Your task to perform on an android device: Search for the new Nike Air Max 270 on Nike.com Image 0: 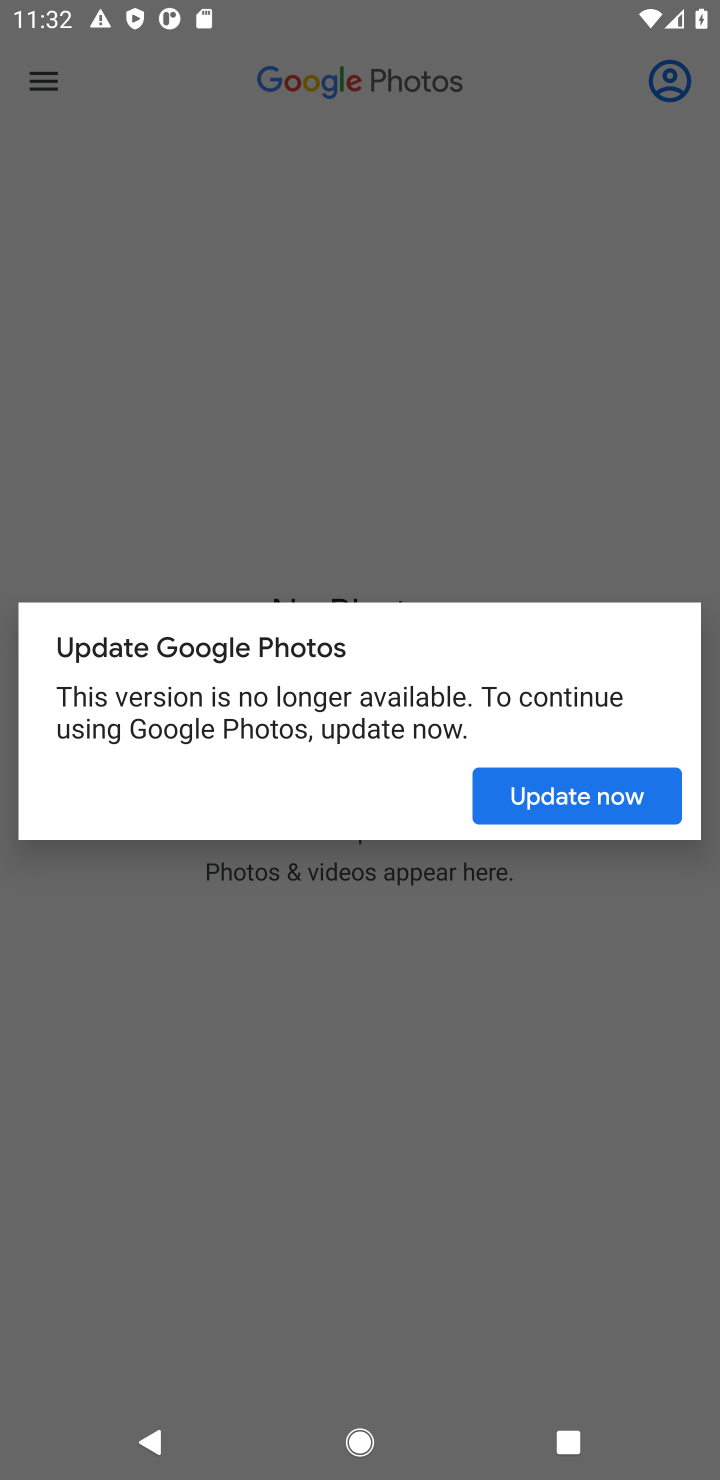
Step 0: press home button
Your task to perform on an android device: Search for the new Nike Air Max 270 on Nike.com Image 1: 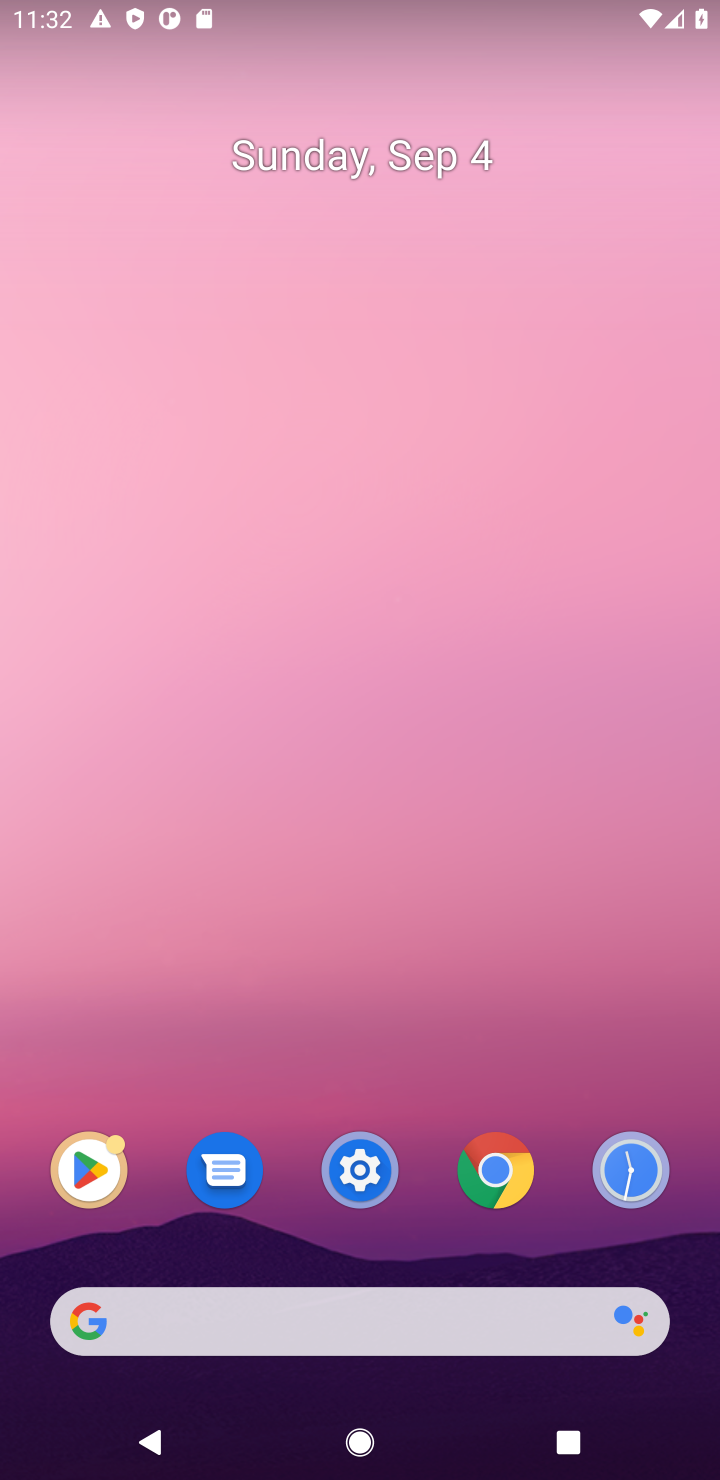
Step 1: click (353, 1297)
Your task to perform on an android device: Search for the new Nike Air Max 270 on Nike.com Image 2: 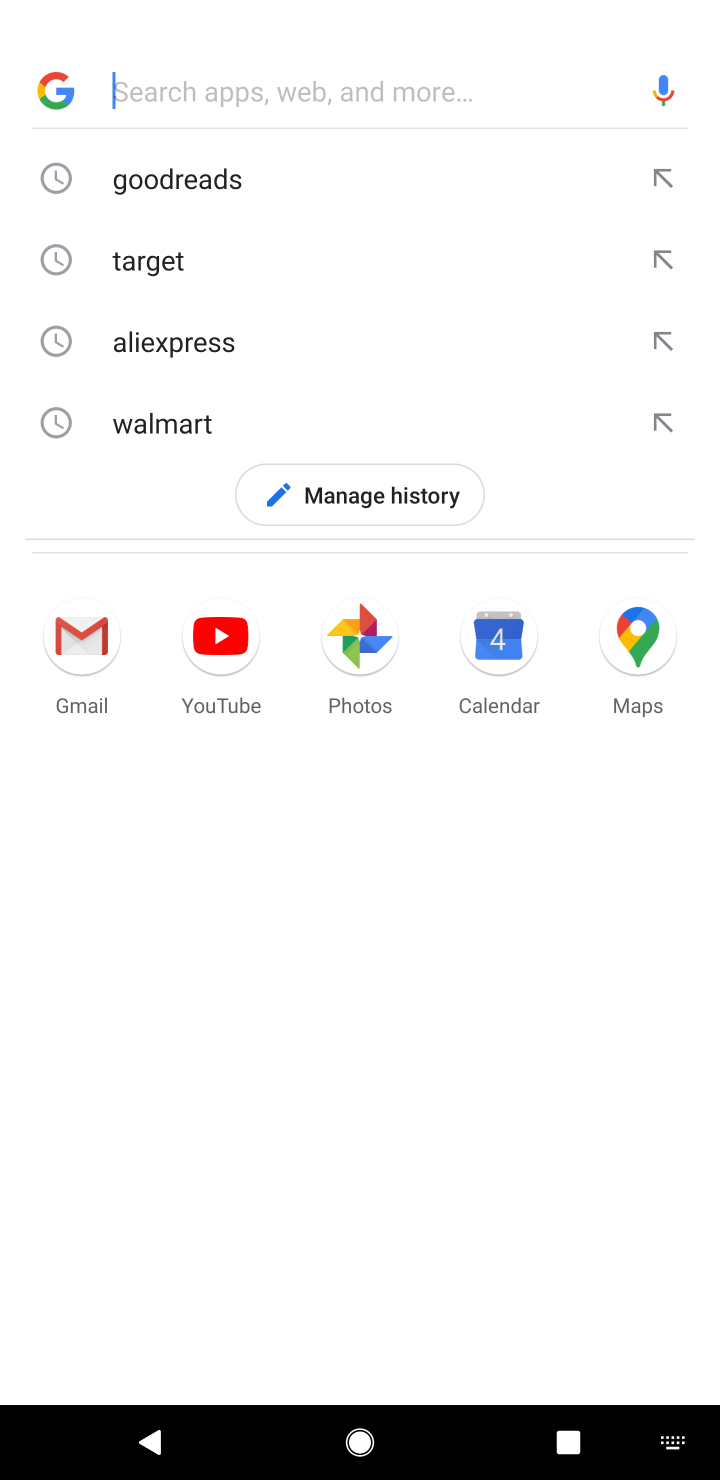
Step 2: type "Nike.com"
Your task to perform on an android device: Search for the new Nike Air Max 270 on Nike.com Image 3: 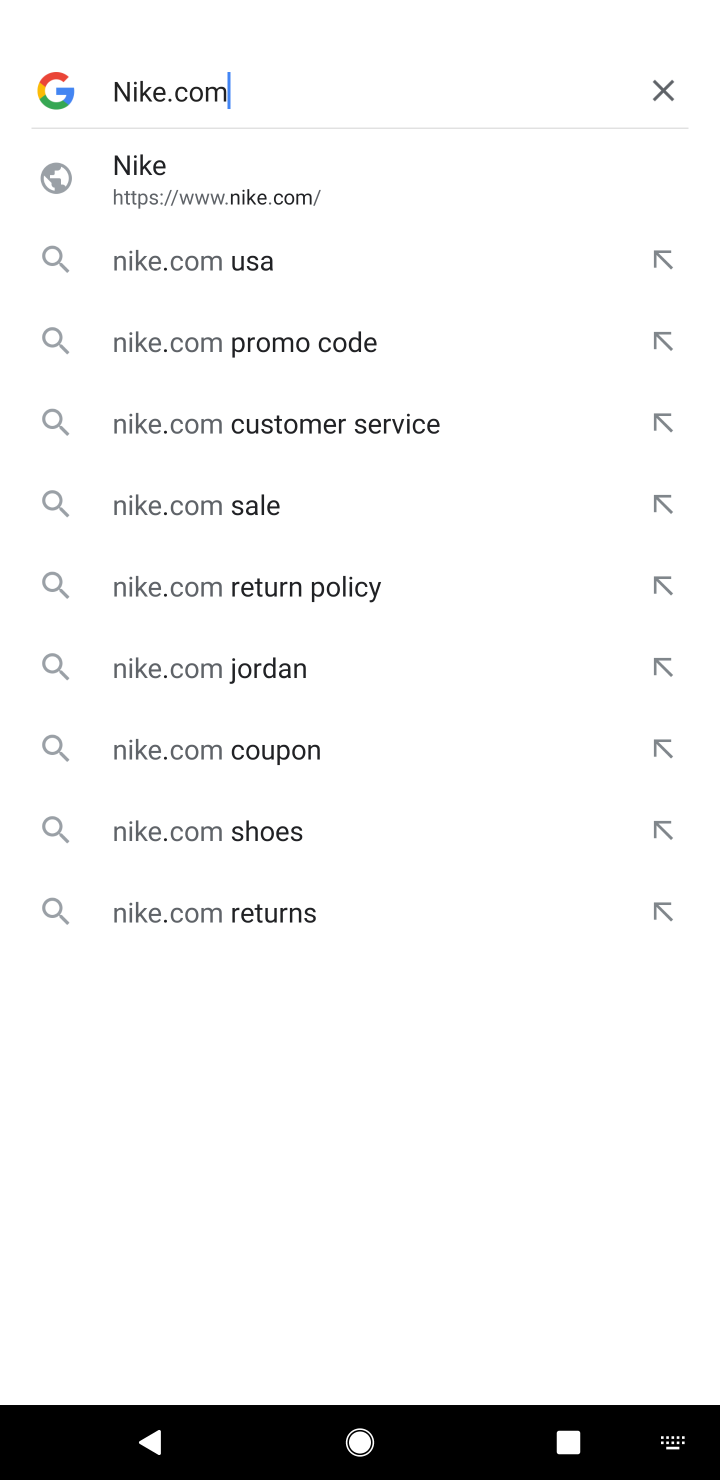
Step 3: click (143, 188)
Your task to perform on an android device: Search for the new Nike Air Max 270 on Nike.com Image 4: 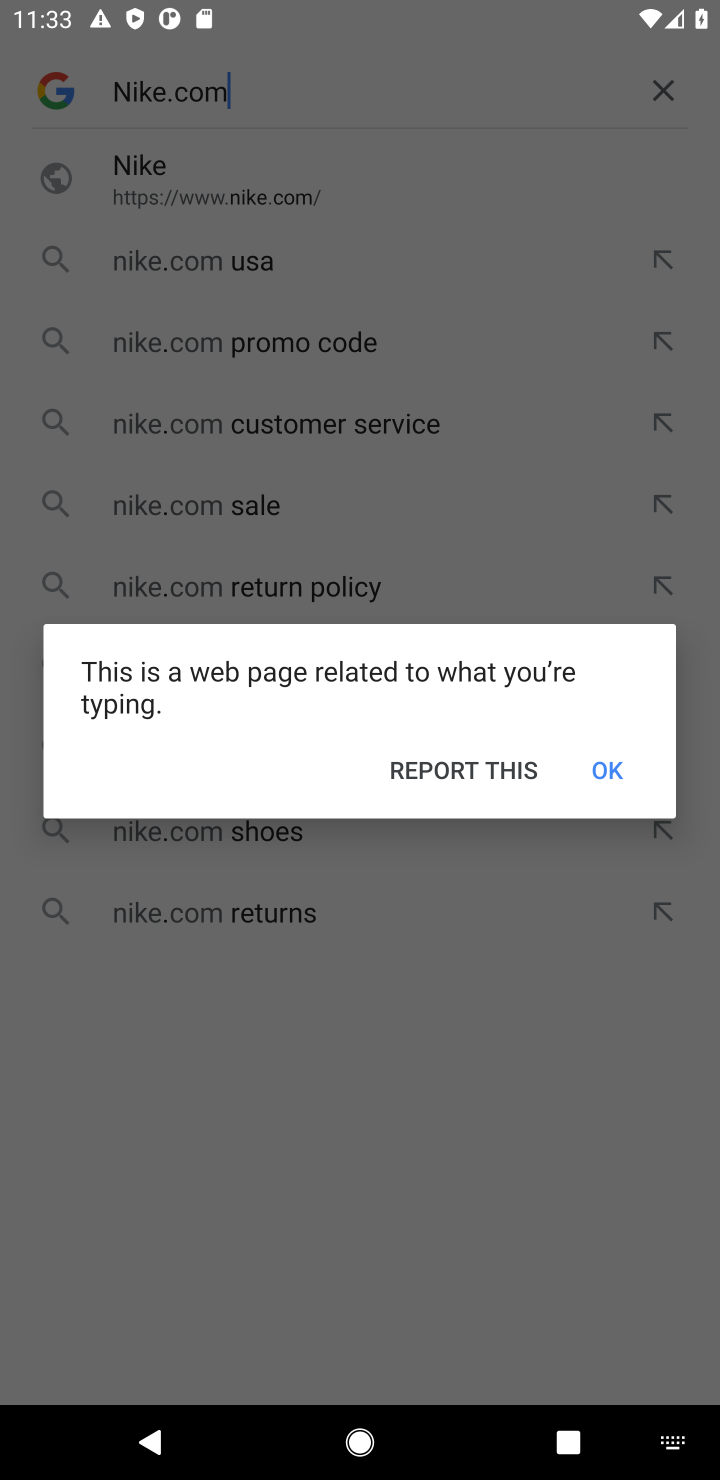
Step 4: click (575, 766)
Your task to perform on an android device: Search for the new Nike Air Max 270 on Nike.com Image 5: 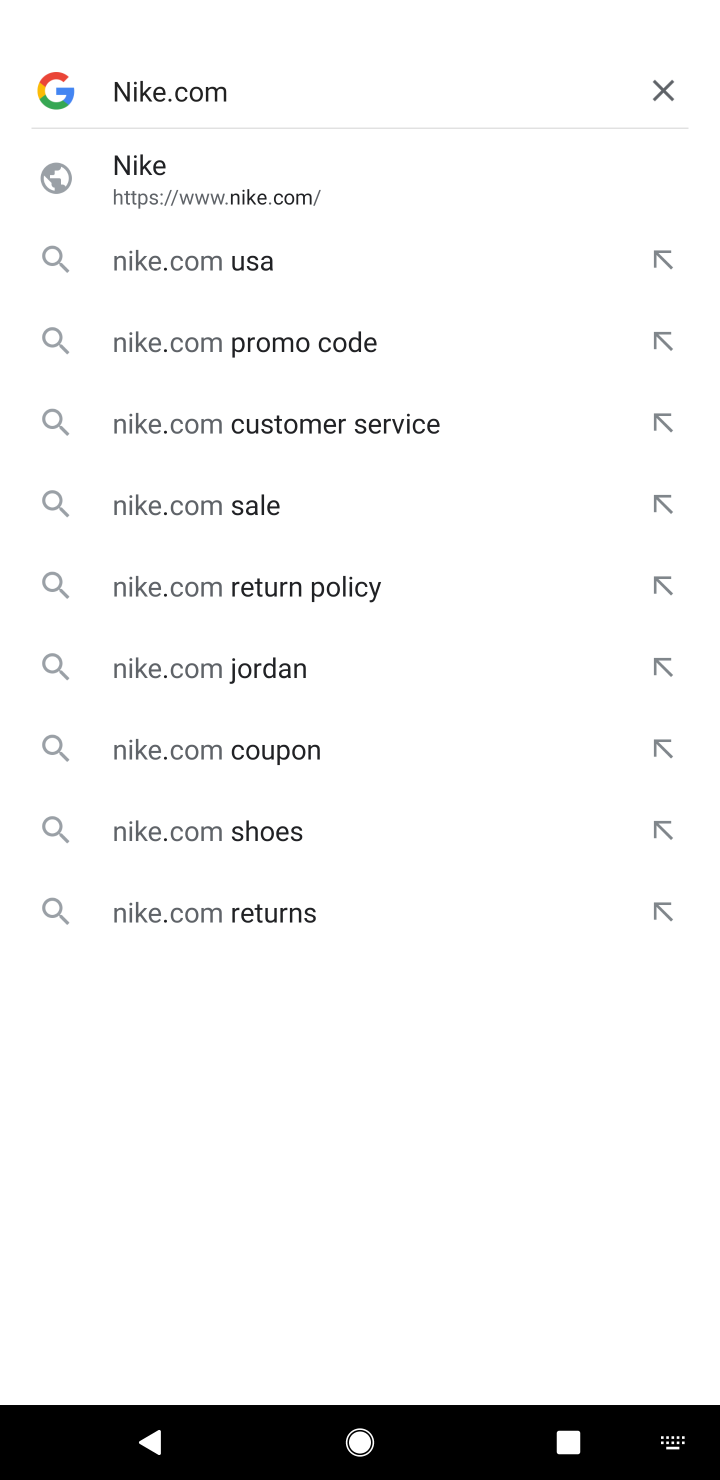
Step 5: click (196, 210)
Your task to perform on an android device: Search for the new Nike Air Max 270 on Nike.com Image 6: 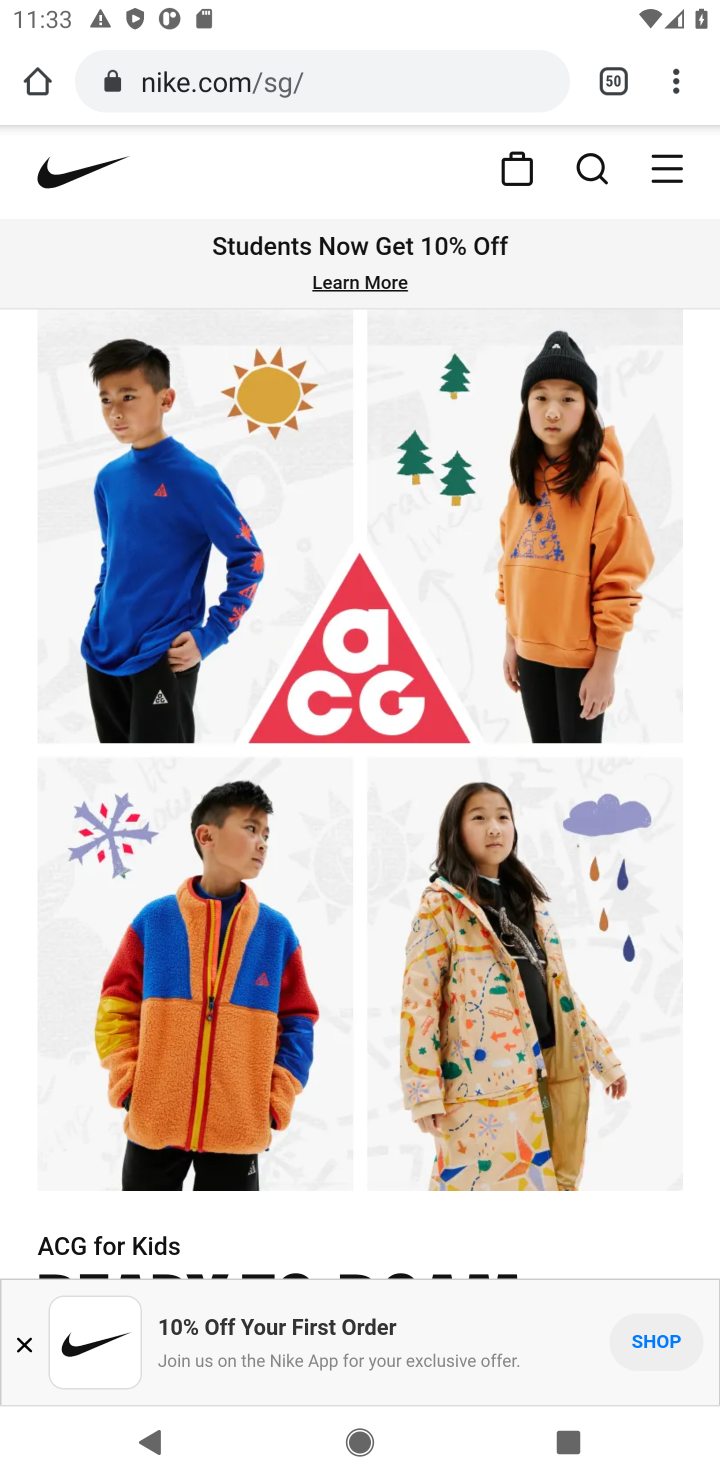
Step 6: click (593, 180)
Your task to perform on an android device: Search for the new Nike Air Max 270 on Nike.com Image 7: 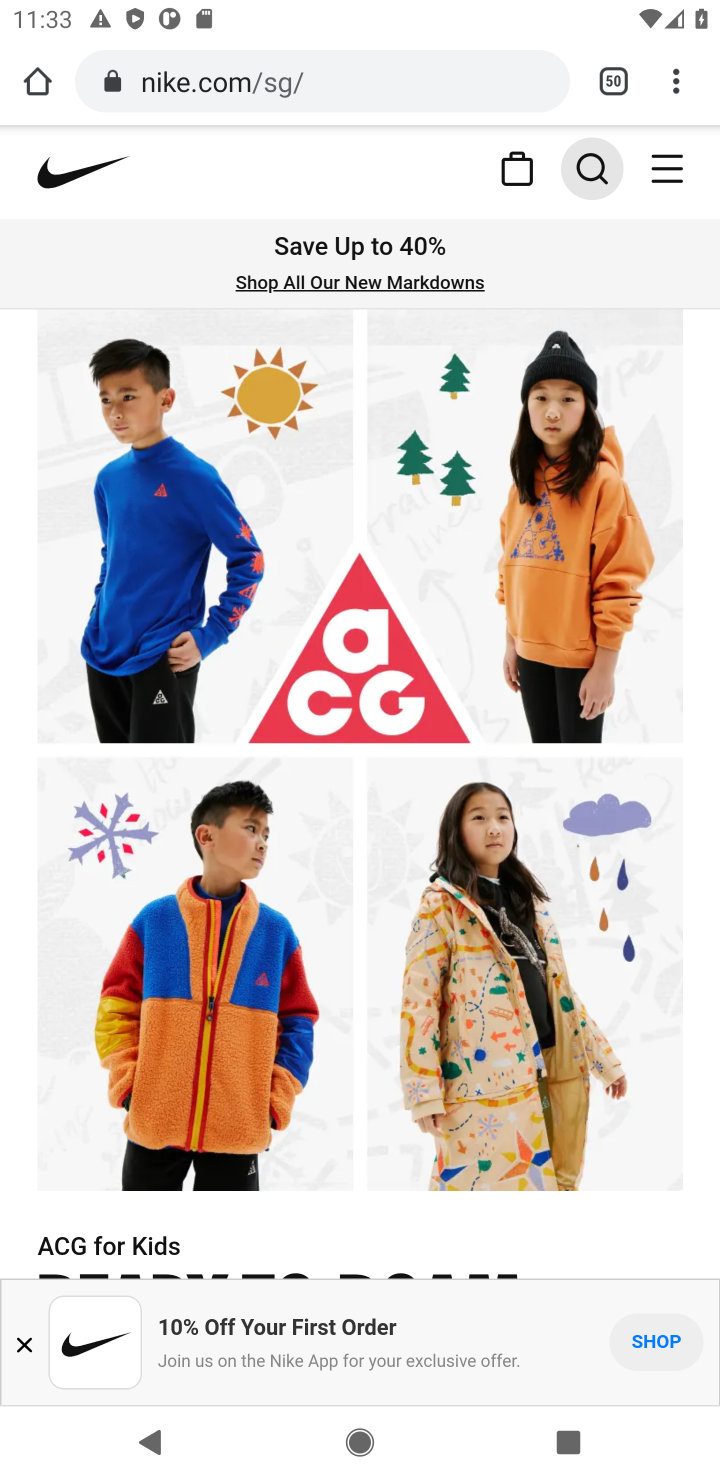
Step 7: click (593, 180)
Your task to perform on an android device: Search for the new Nike Air Max 270 on Nike.com Image 8: 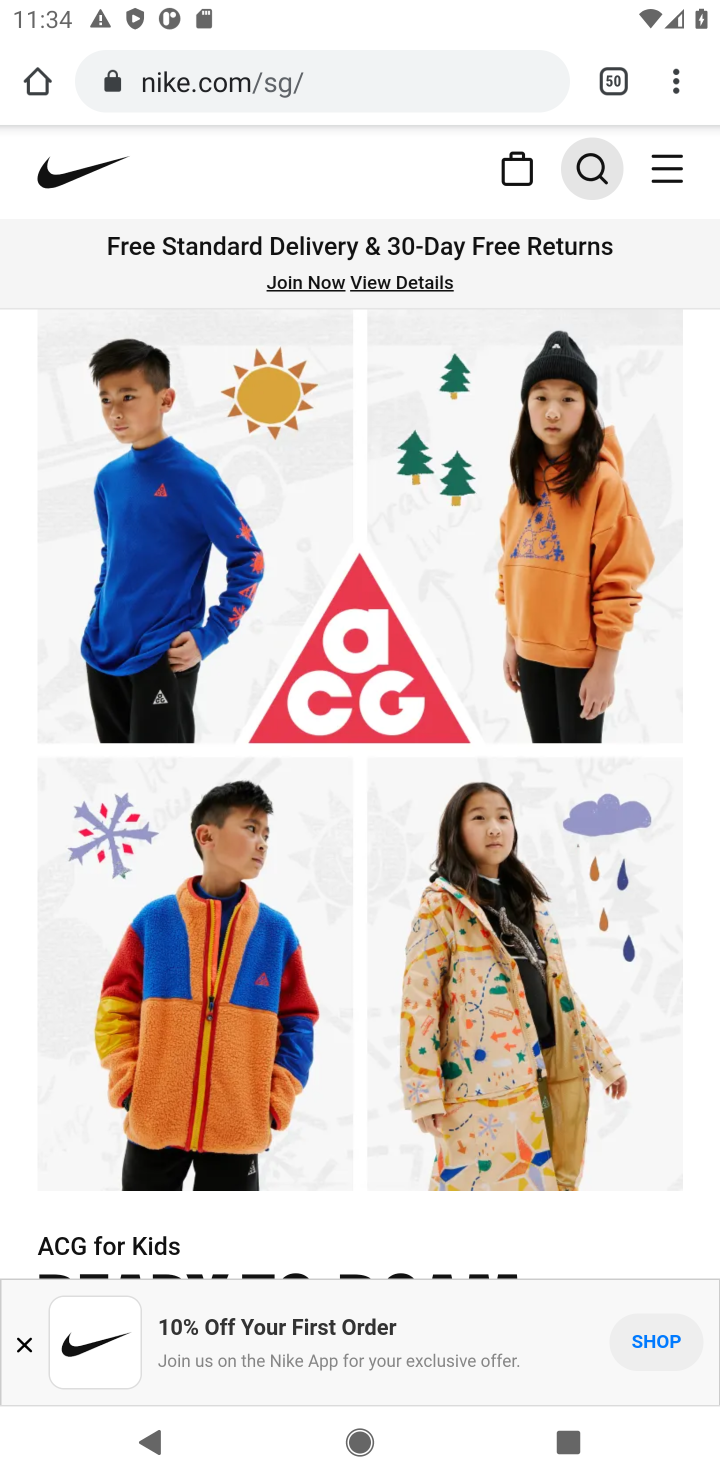
Step 8: click (596, 180)
Your task to perform on an android device: Search for the new Nike Air Max 270 on Nike.com Image 9: 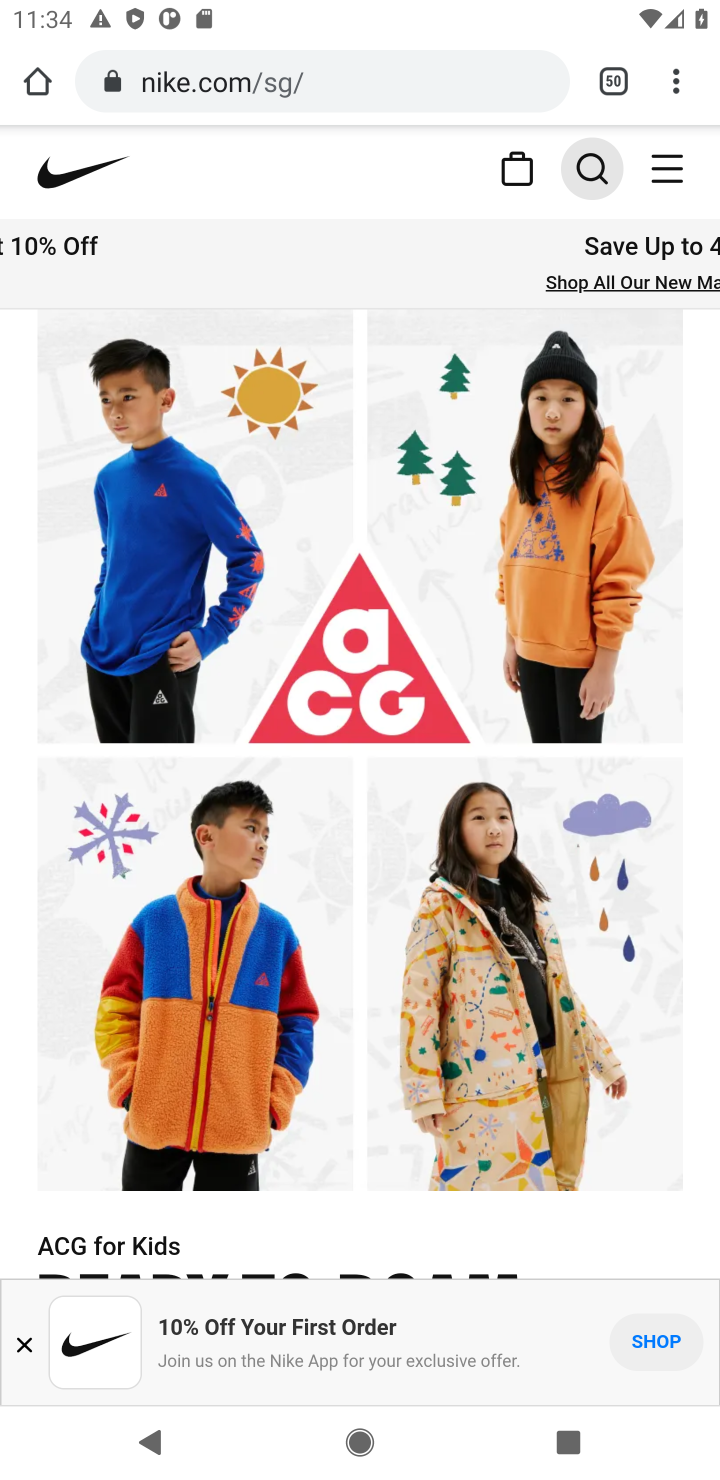
Step 9: click (600, 156)
Your task to perform on an android device: Search for the new Nike Air Max 270 on Nike.com Image 10: 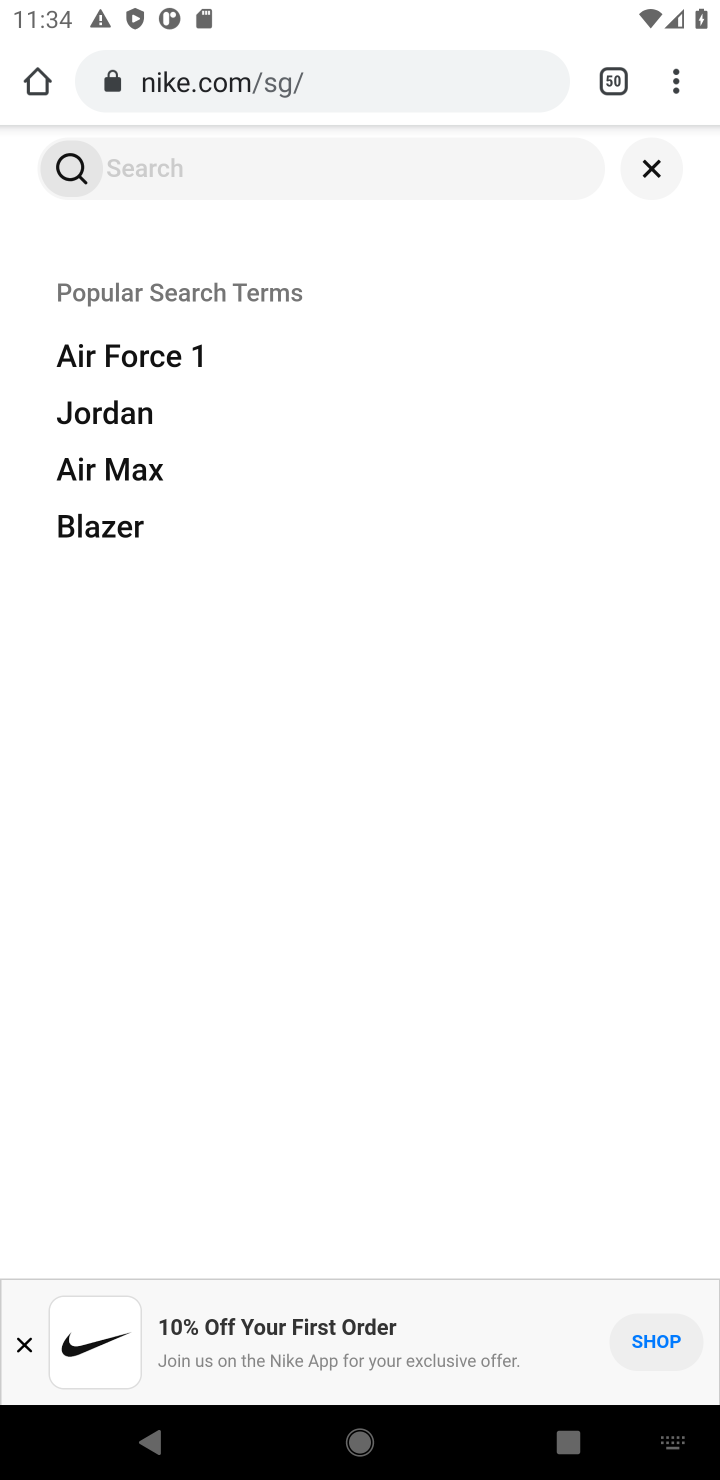
Step 10: click (279, 171)
Your task to perform on an android device: Search for the new Nike Air Max 270 on Nike.com Image 11: 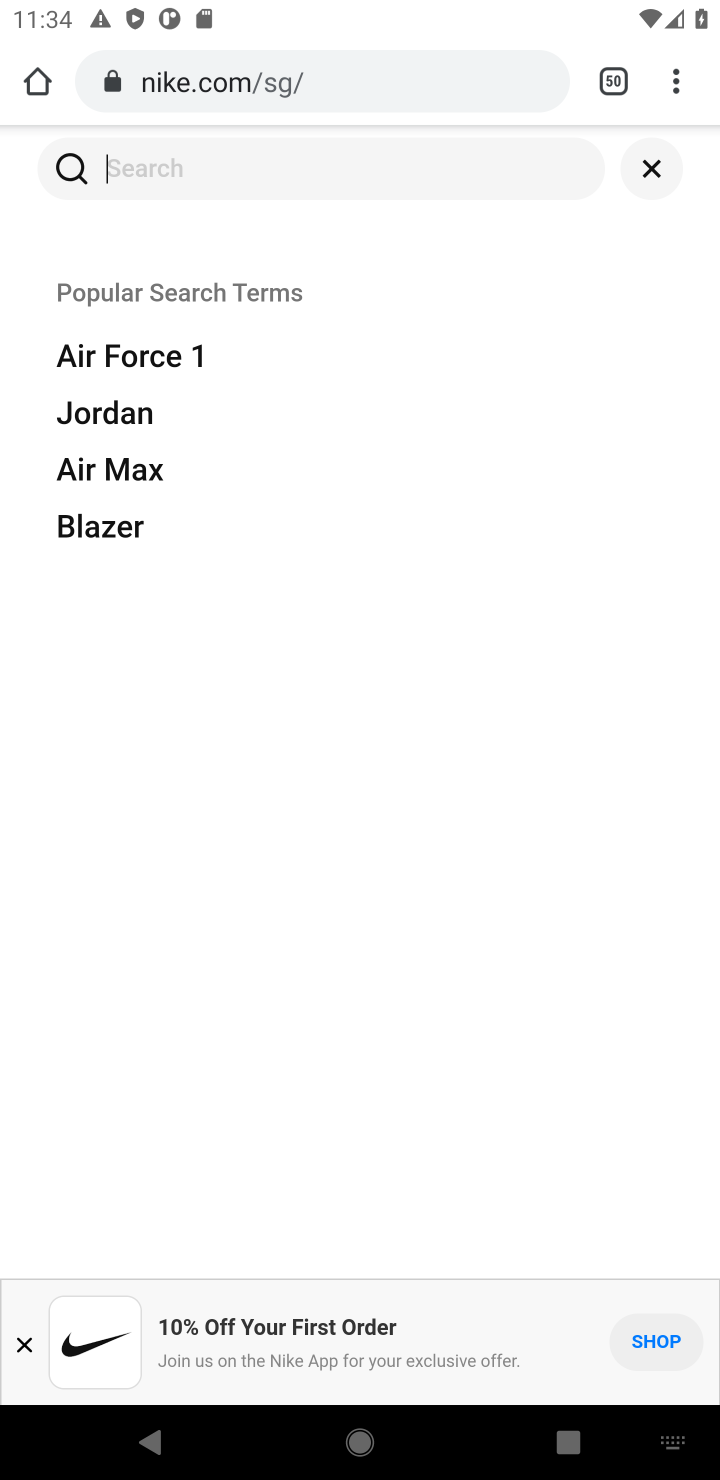
Step 11: type "Air Max 270"
Your task to perform on an android device: Search for the new Nike Air Max 270 on Nike.com Image 12: 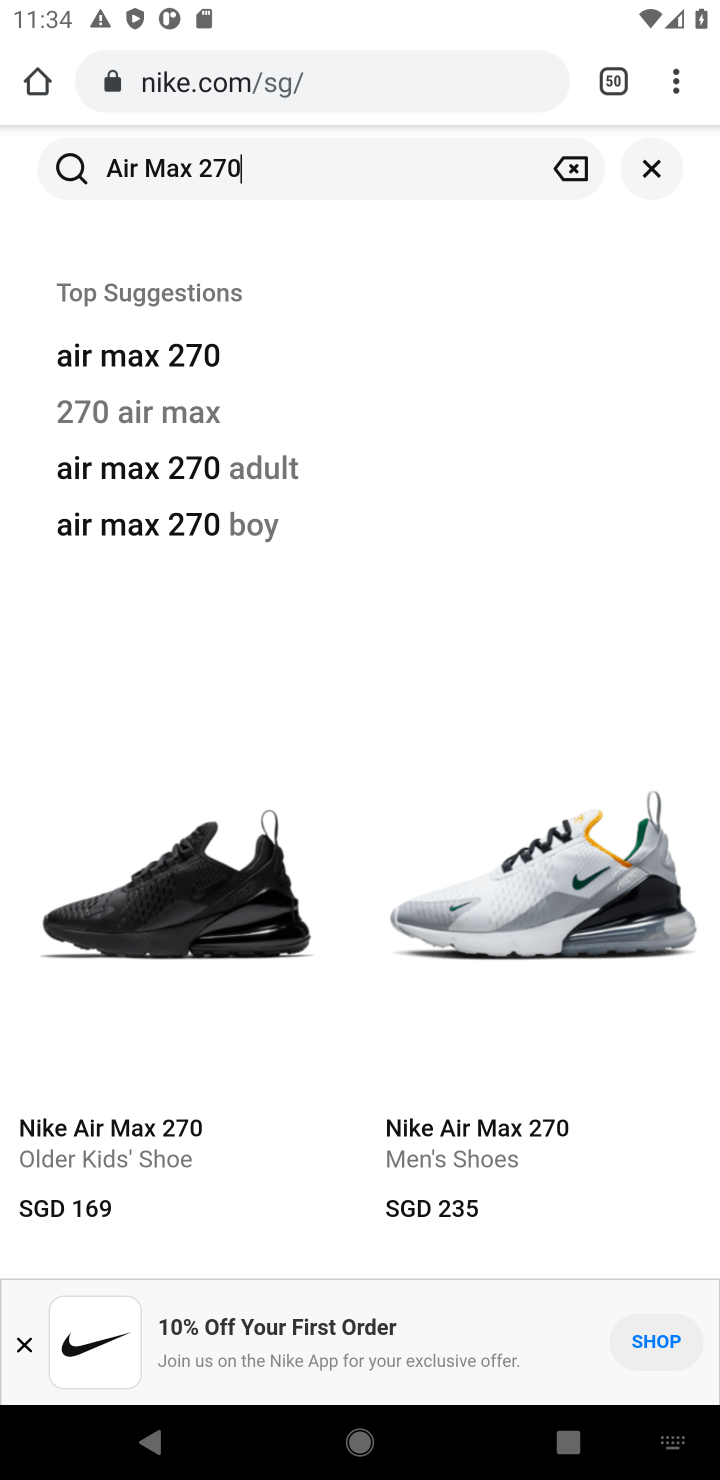
Step 12: click (184, 346)
Your task to perform on an android device: Search for the new Nike Air Max 270 on Nike.com Image 13: 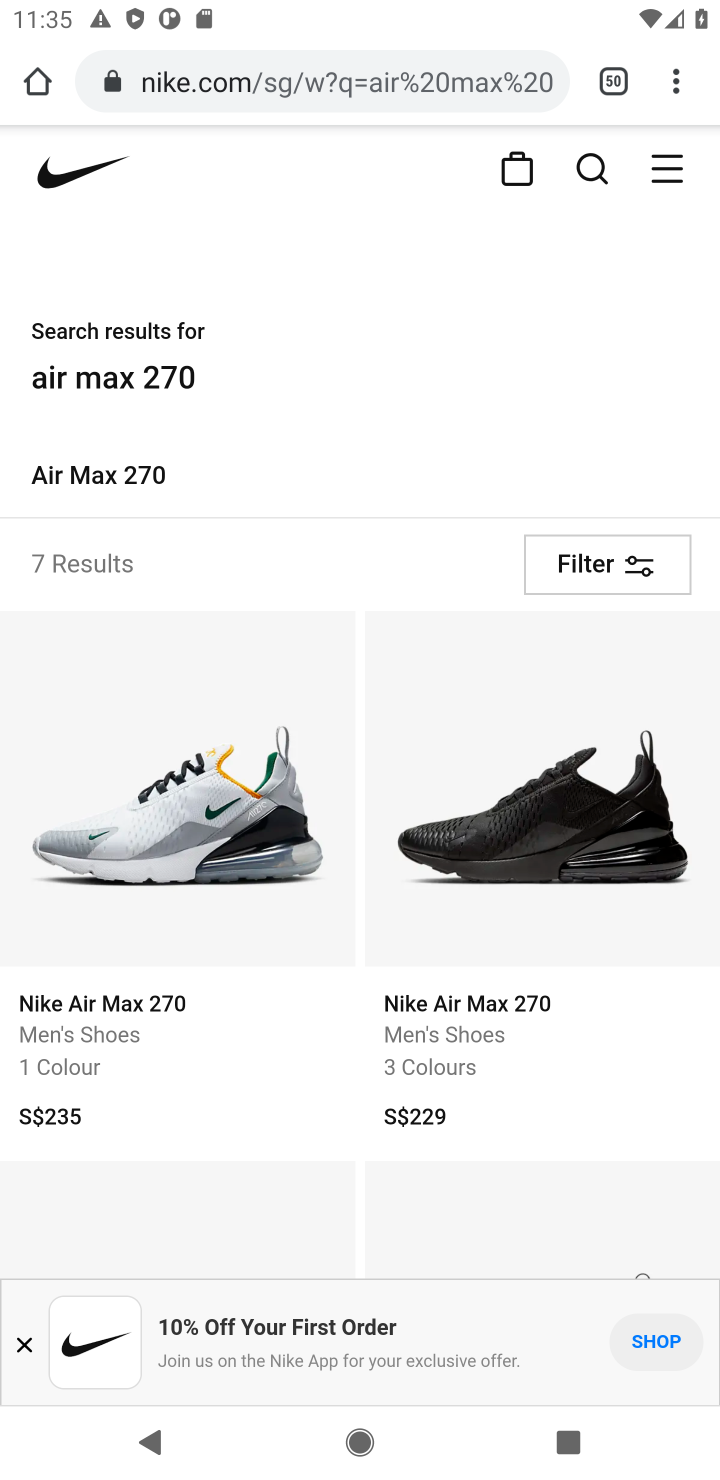
Step 13: task complete